Your task to perform on an android device: Open my contact list Image 0: 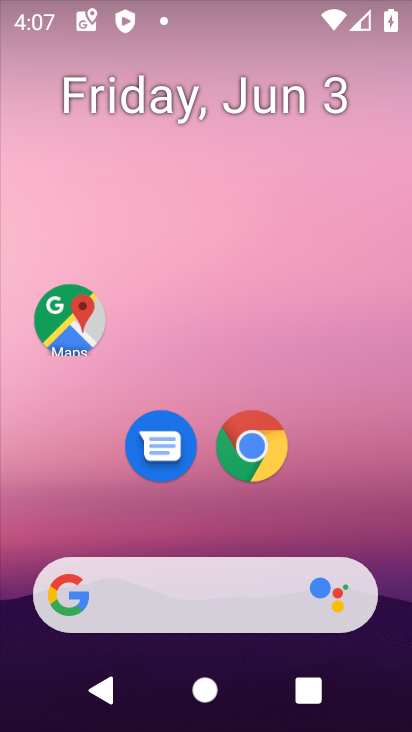
Step 0: task complete